Your task to perform on an android device: Go to ESPN.com Image 0: 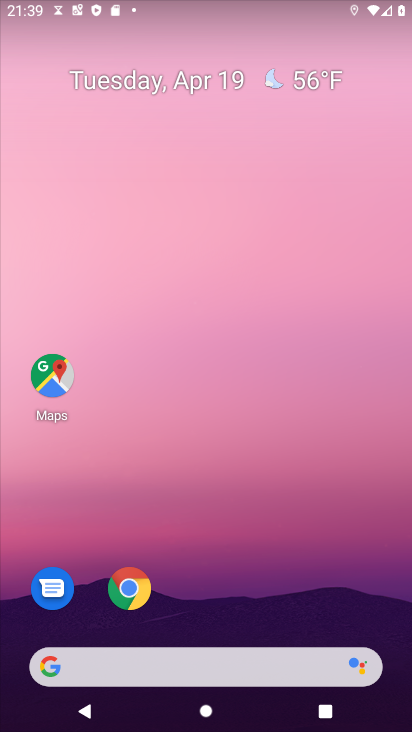
Step 0: click (129, 589)
Your task to perform on an android device: Go to ESPN.com Image 1: 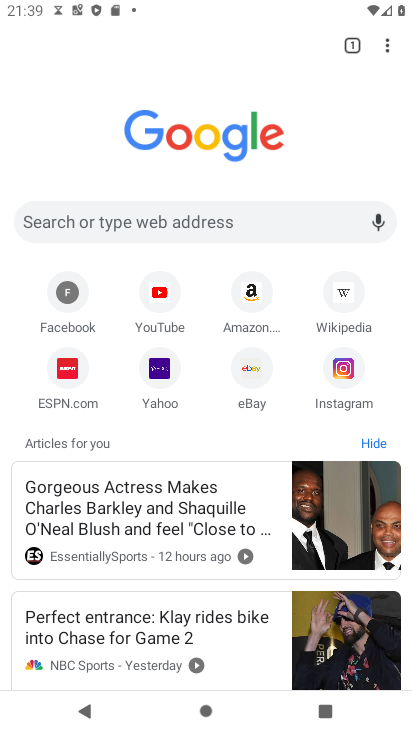
Step 1: click (259, 227)
Your task to perform on an android device: Go to ESPN.com Image 2: 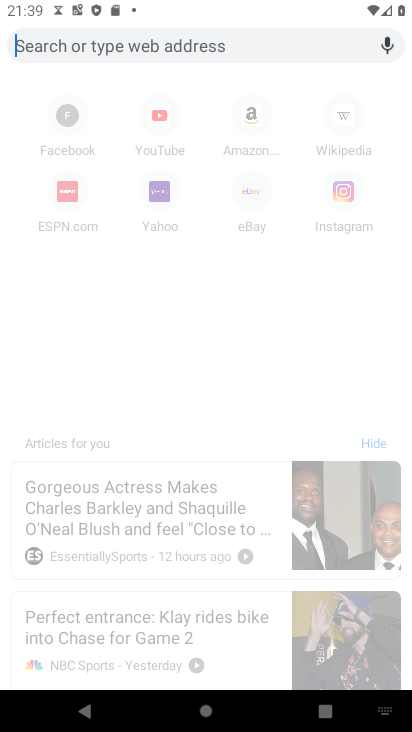
Step 2: type "ESPN.com"
Your task to perform on an android device: Go to ESPN.com Image 3: 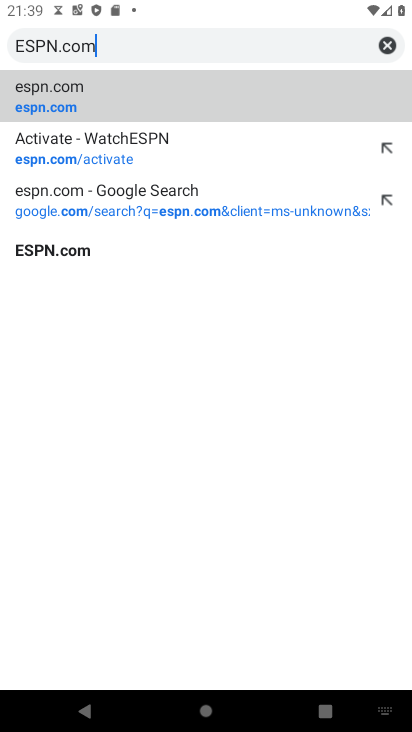
Step 3: click (82, 102)
Your task to perform on an android device: Go to ESPN.com Image 4: 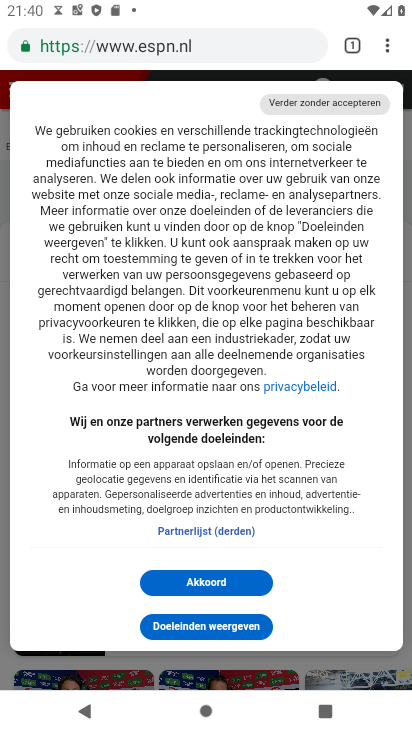
Step 4: task complete